Your task to perform on an android device: delete the emails in spam in the gmail app Image 0: 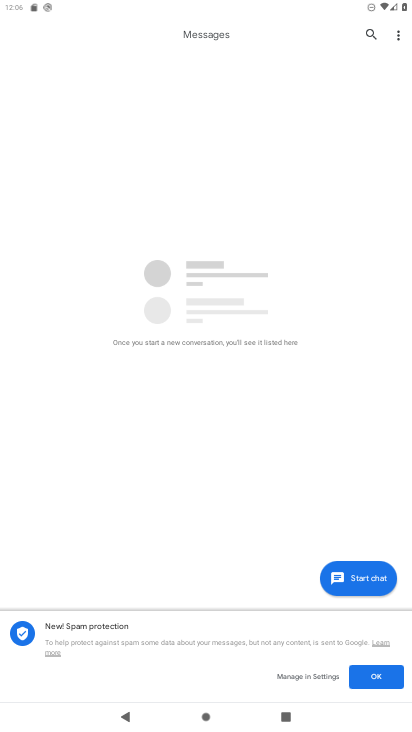
Step 0: press home button
Your task to perform on an android device: delete the emails in spam in the gmail app Image 1: 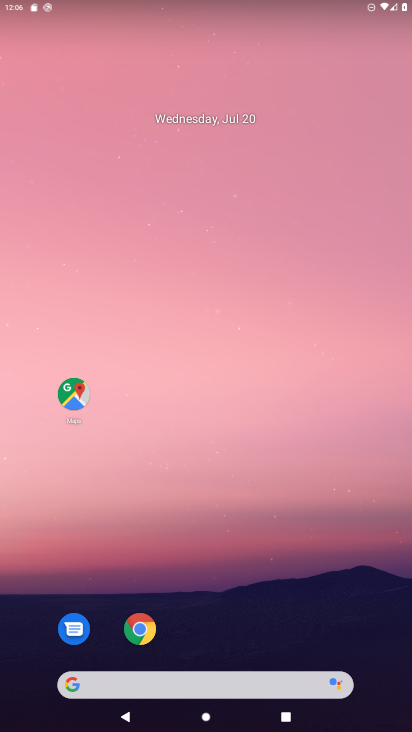
Step 1: drag from (170, 578) to (165, 181)
Your task to perform on an android device: delete the emails in spam in the gmail app Image 2: 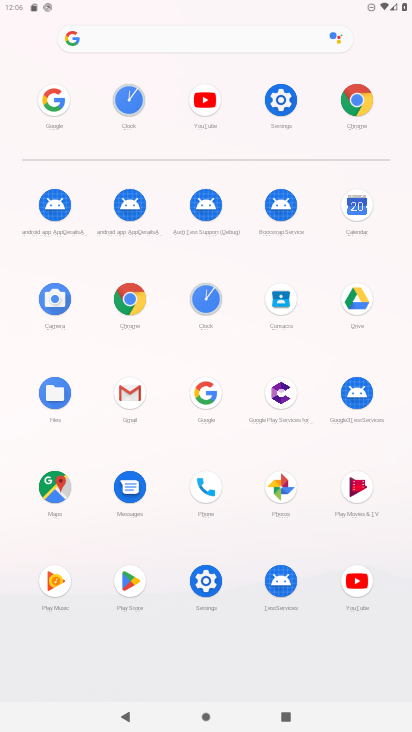
Step 2: click (131, 404)
Your task to perform on an android device: delete the emails in spam in the gmail app Image 3: 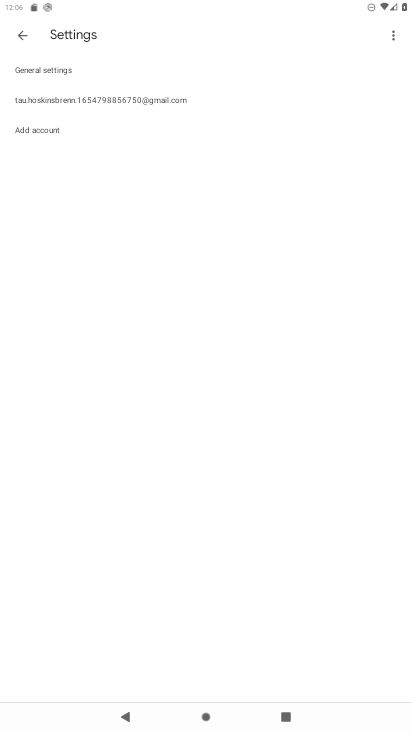
Step 3: click (19, 40)
Your task to perform on an android device: delete the emails in spam in the gmail app Image 4: 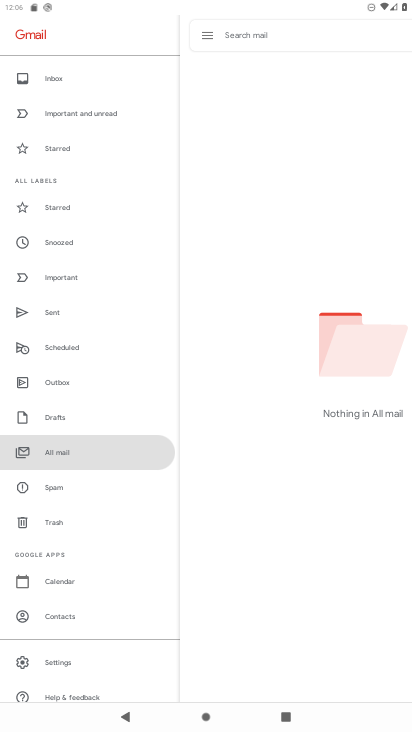
Step 4: click (62, 482)
Your task to perform on an android device: delete the emails in spam in the gmail app Image 5: 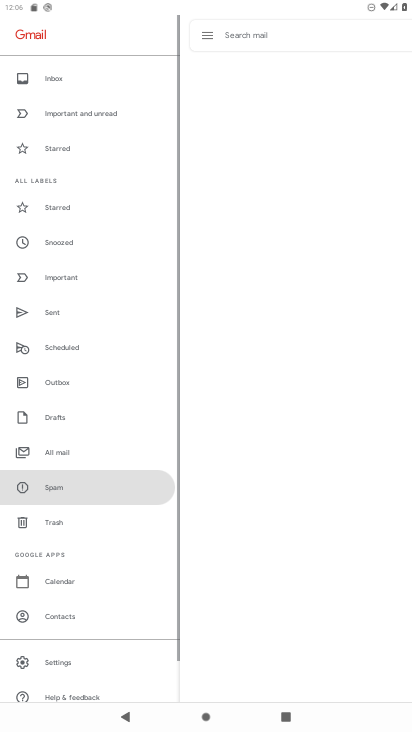
Step 5: click (50, 488)
Your task to perform on an android device: delete the emails in spam in the gmail app Image 6: 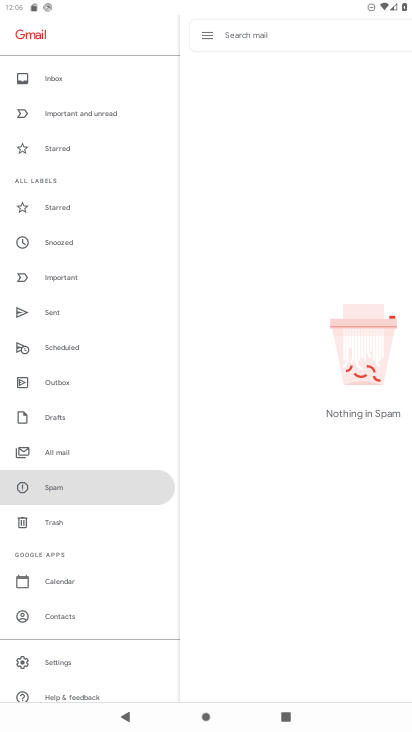
Step 6: task complete